Your task to perform on an android device: change alarm snooze length Image 0: 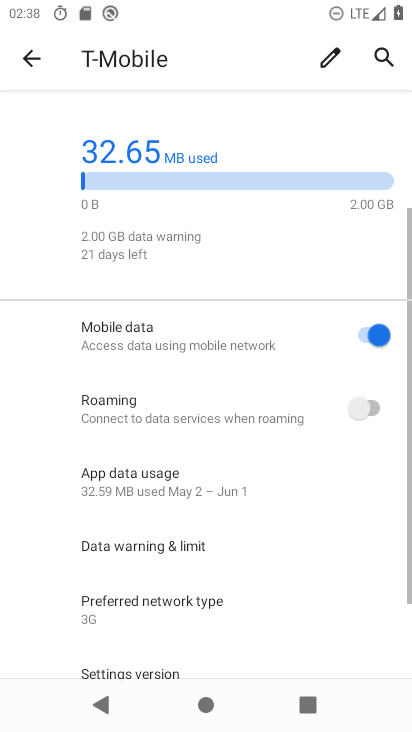
Step 0: drag from (309, 673) to (290, 262)
Your task to perform on an android device: change alarm snooze length Image 1: 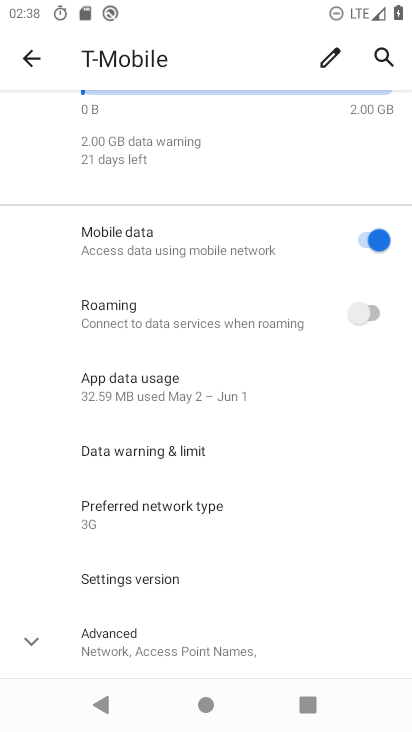
Step 1: press home button
Your task to perform on an android device: change alarm snooze length Image 2: 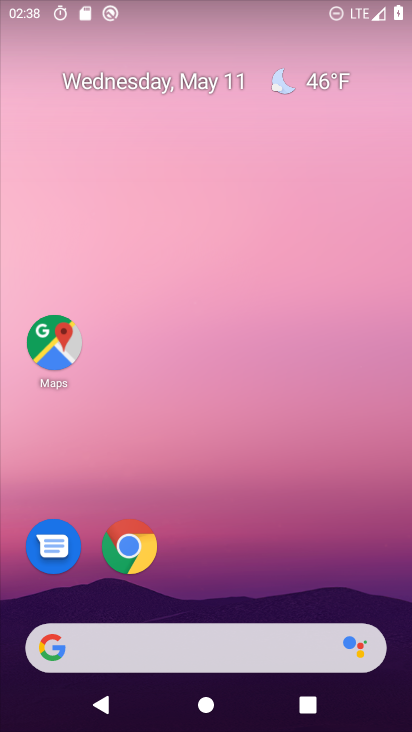
Step 2: drag from (237, 682) to (233, 215)
Your task to perform on an android device: change alarm snooze length Image 3: 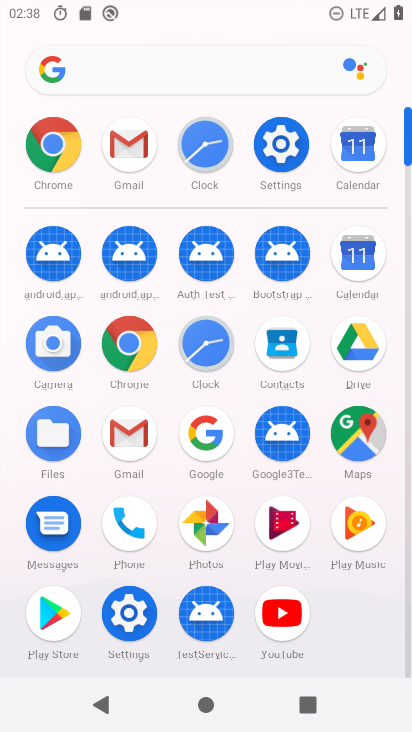
Step 3: click (197, 158)
Your task to perform on an android device: change alarm snooze length Image 4: 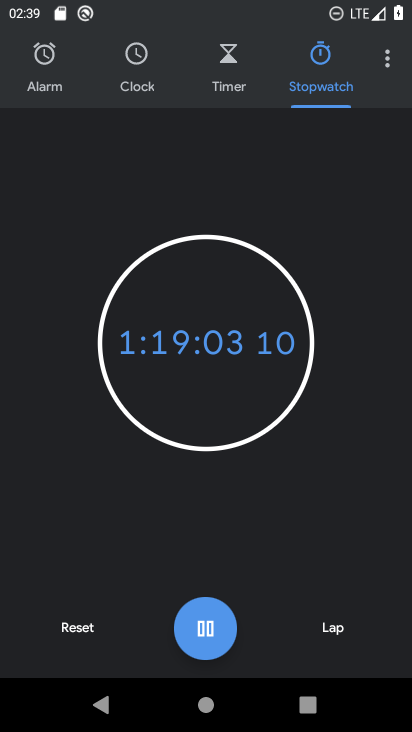
Step 4: click (372, 74)
Your task to perform on an android device: change alarm snooze length Image 5: 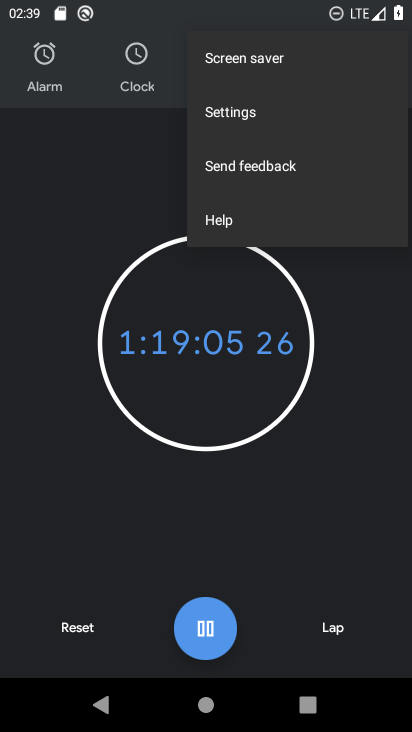
Step 5: click (252, 120)
Your task to perform on an android device: change alarm snooze length Image 6: 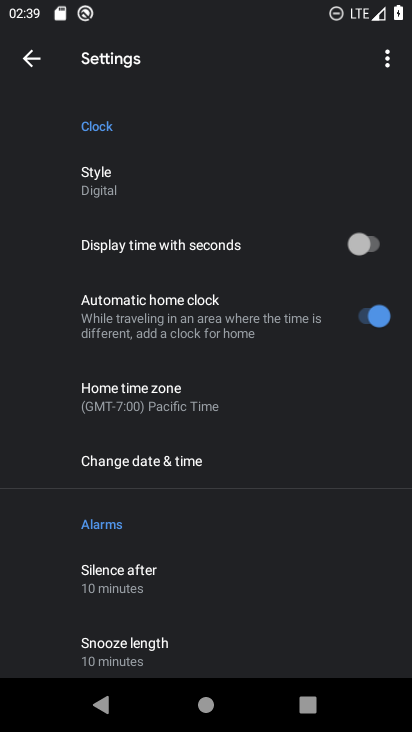
Step 6: drag from (176, 516) to (202, 356)
Your task to perform on an android device: change alarm snooze length Image 7: 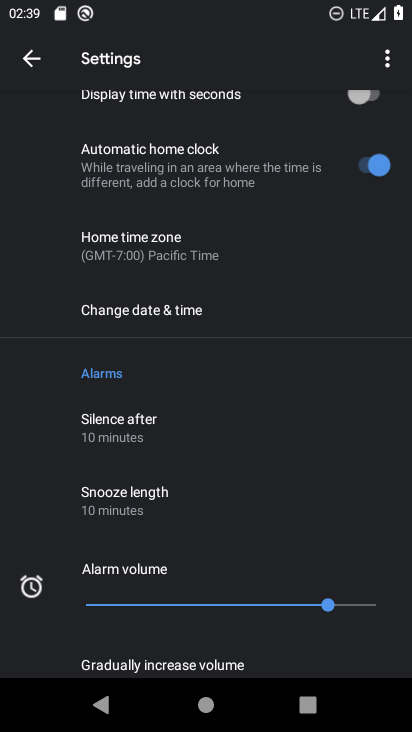
Step 7: click (184, 501)
Your task to perform on an android device: change alarm snooze length Image 8: 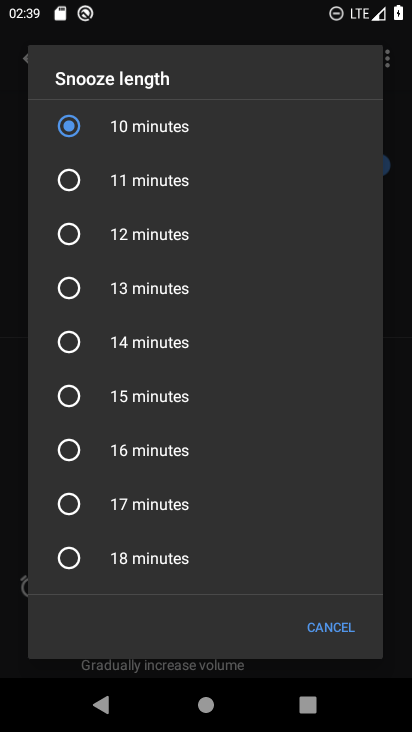
Step 8: click (153, 233)
Your task to perform on an android device: change alarm snooze length Image 9: 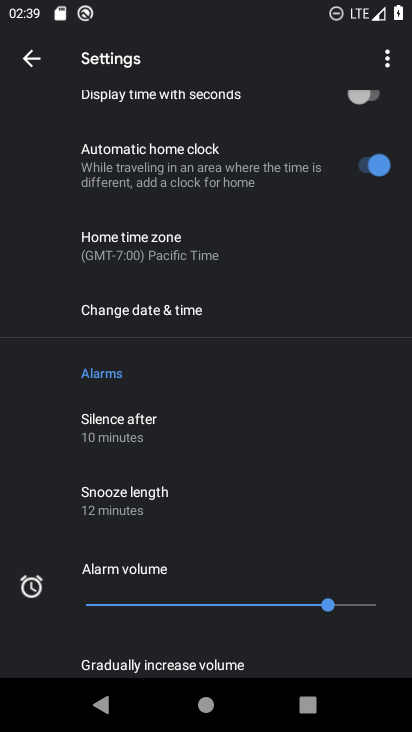
Step 9: task complete